Your task to perform on an android device: clear history in the chrome app Image 0: 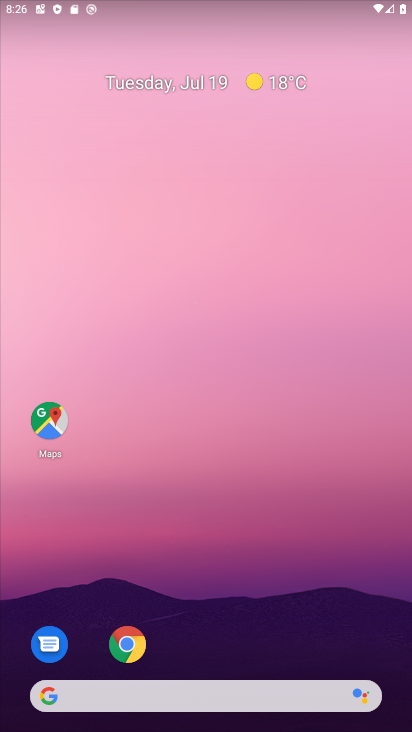
Step 0: click (129, 652)
Your task to perform on an android device: clear history in the chrome app Image 1: 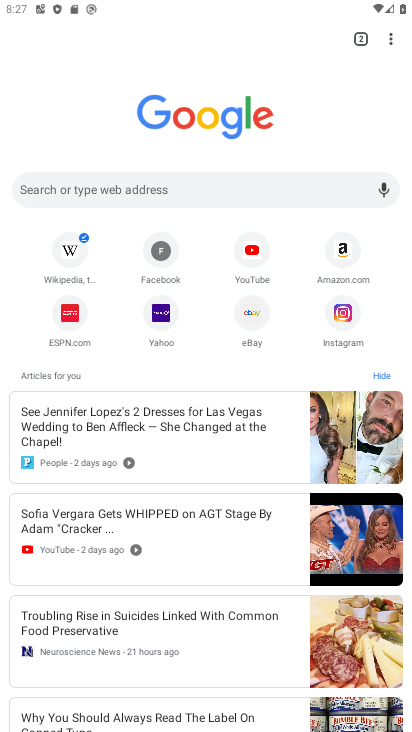
Step 1: click (392, 39)
Your task to perform on an android device: clear history in the chrome app Image 2: 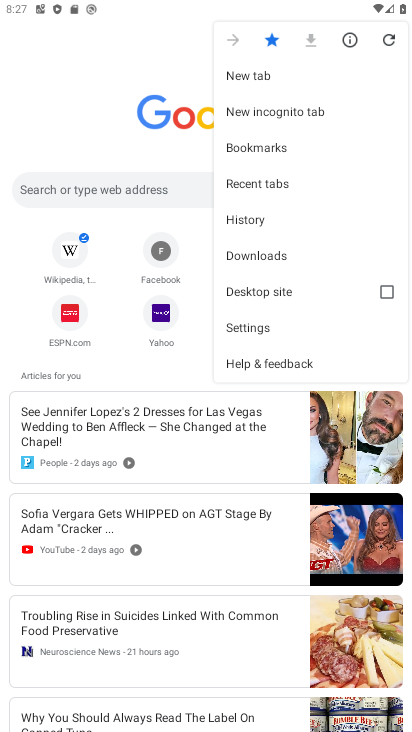
Step 2: click (253, 218)
Your task to perform on an android device: clear history in the chrome app Image 3: 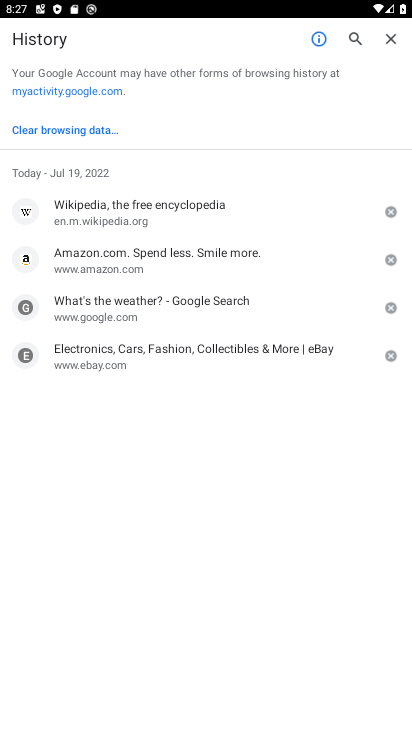
Step 3: click (44, 126)
Your task to perform on an android device: clear history in the chrome app Image 4: 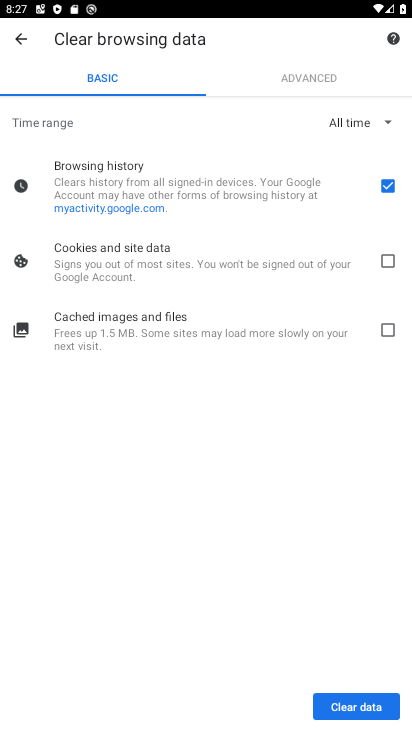
Step 4: click (383, 707)
Your task to perform on an android device: clear history in the chrome app Image 5: 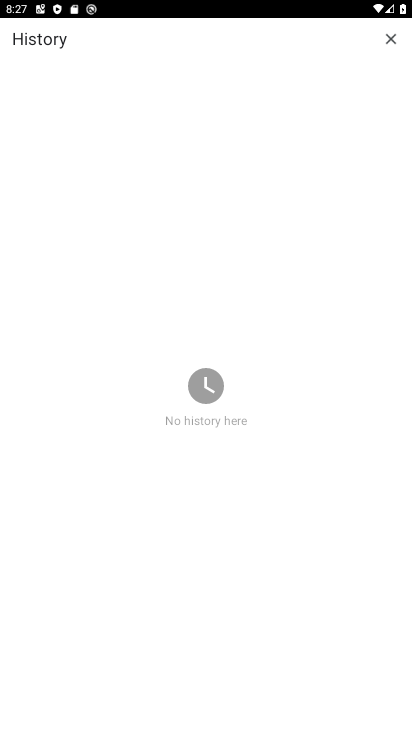
Step 5: task complete